Your task to perform on an android device: install app "Spotify" Image 0: 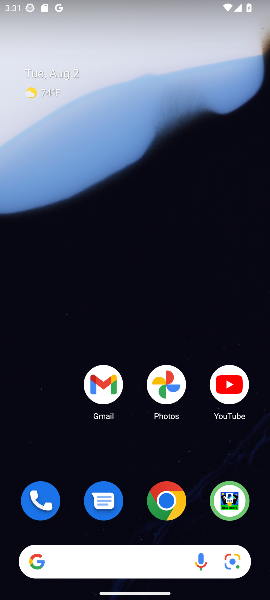
Step 0: drag from (138, 423) to (130, 85)
Your task to perform on an android device: install app "Spotify" Image 1: 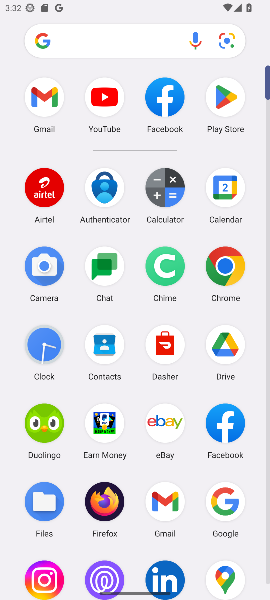
Step 1: click (232, 95)
Your task to perform on an android device: install app "Spotify" Image 2: 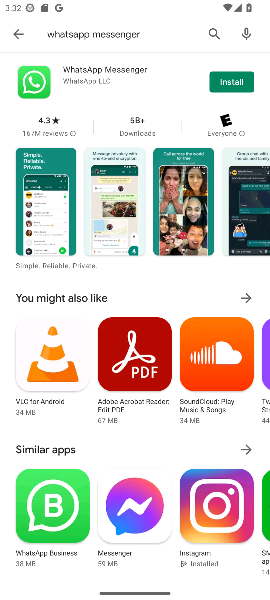
Step 2: click (212, 34)
Your task to perform on an android device: install app "Spotify" Image 3: 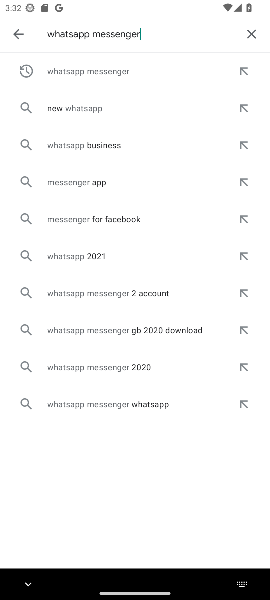
Step 3: click (243, 32)
Your task to perform on an android device: install app "Spotify" Image 4: 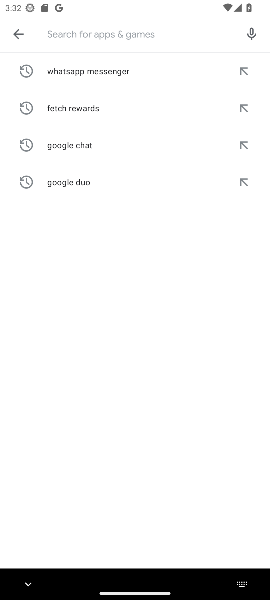
Step 4: type "Spotify"
Your task to perform on an android device: install app "Spotify" Image 5: 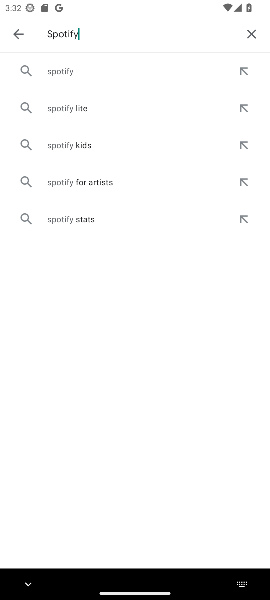
Step 5: click (68, 72)
Your task to perform on an android device: install app "Spotify" Image 6: 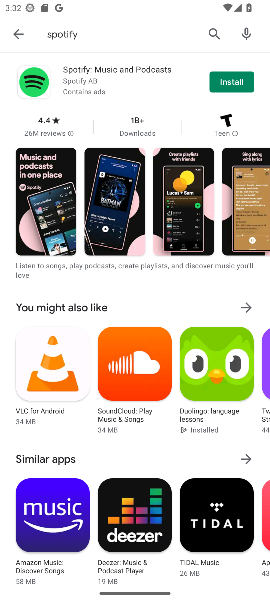
Step 6: click (230, 84)
Your task to perform on an android device: install app "Spotify" Image 7: 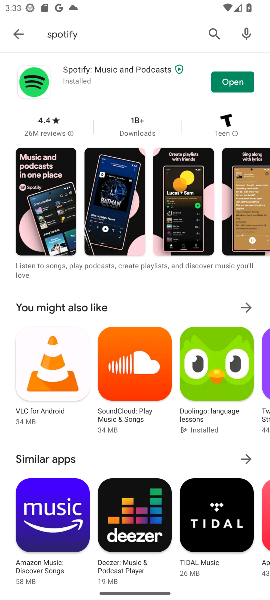
Step 7: task complete